Your task to perform on an android device: refresh tabs in the chrome app Image 0: 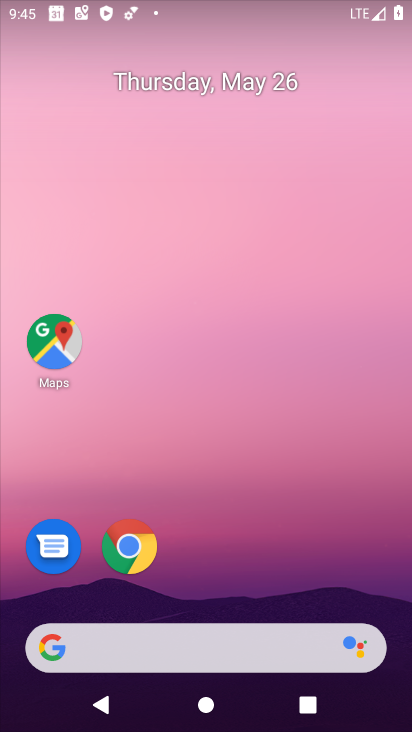
Step 0: click (344, 169)
Your task to perform on an android device: refresh tabs in the chrome app Image 1: 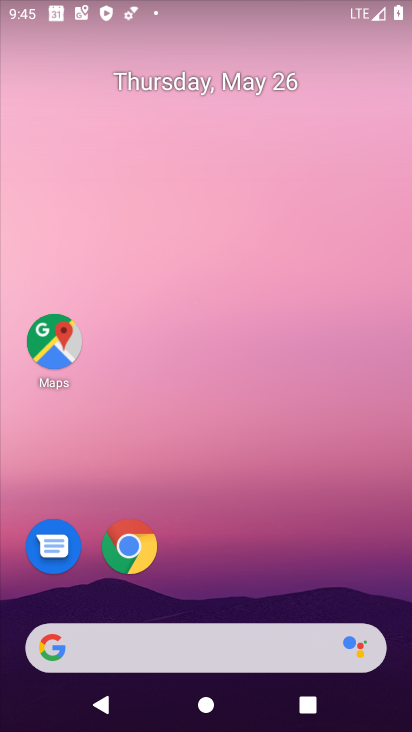
Step 1: drag from (339, 572) to (319, 126)
Your task to perform on an android device: refresh tabs in the chrome app Image 2: 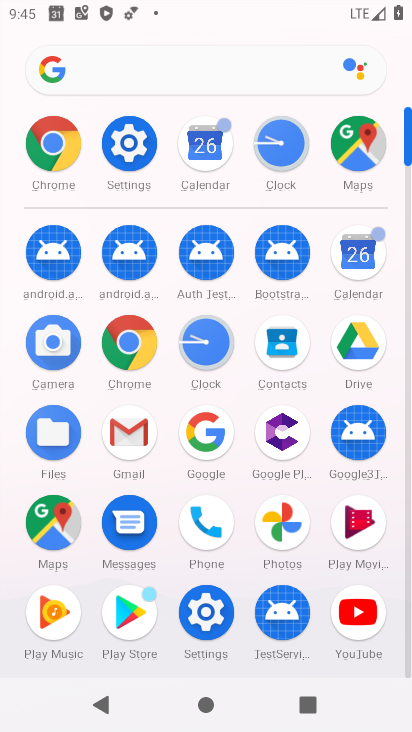
Step 2: click (138, 356)
Your task to perform on an android device: refresh tabs in the chrome app Image 3: 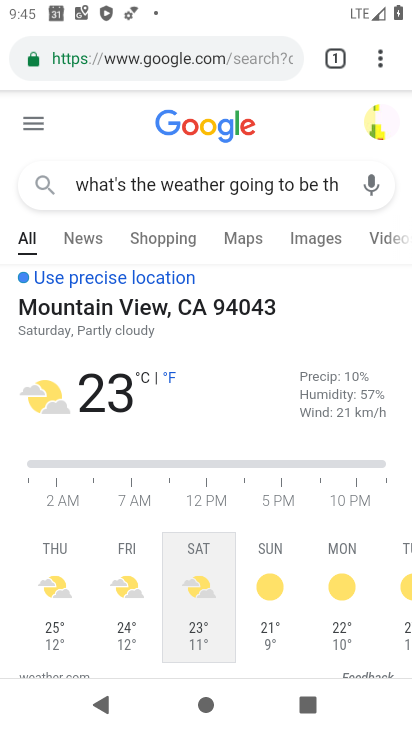
Step 3: click (389, 73)
Your task to perform on an android device: refresh tabs in the chrome app Image 4: 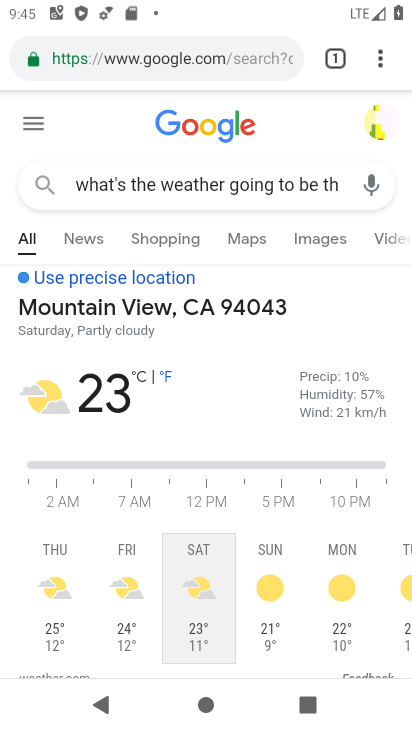
Step 4: task complete